Your task to perform on an android device: What's the weather going to be this weekend? Image 0: 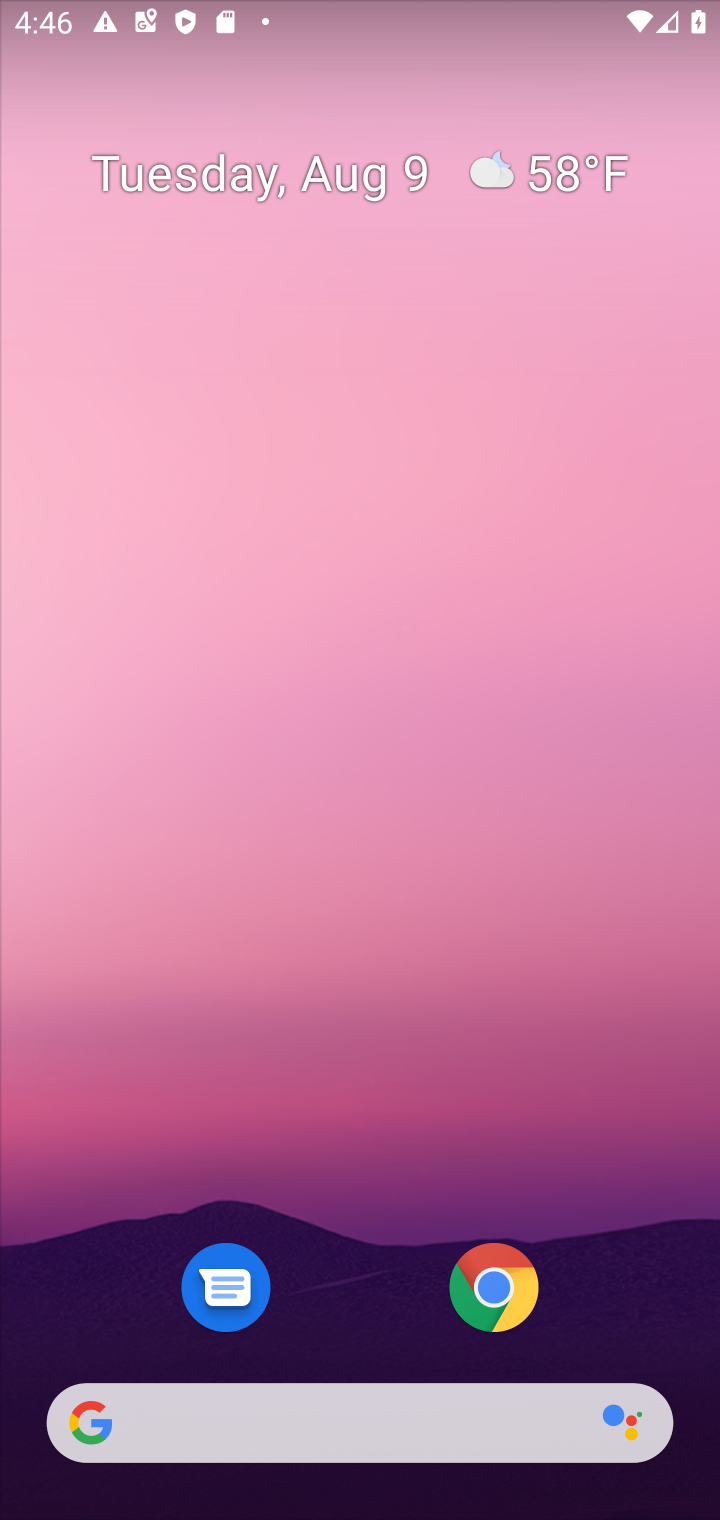
Step 0: drag from (433, 1150) to (448, 105)
Your task to perform on an android device: What's the weather going to be this weekend? Image 1: 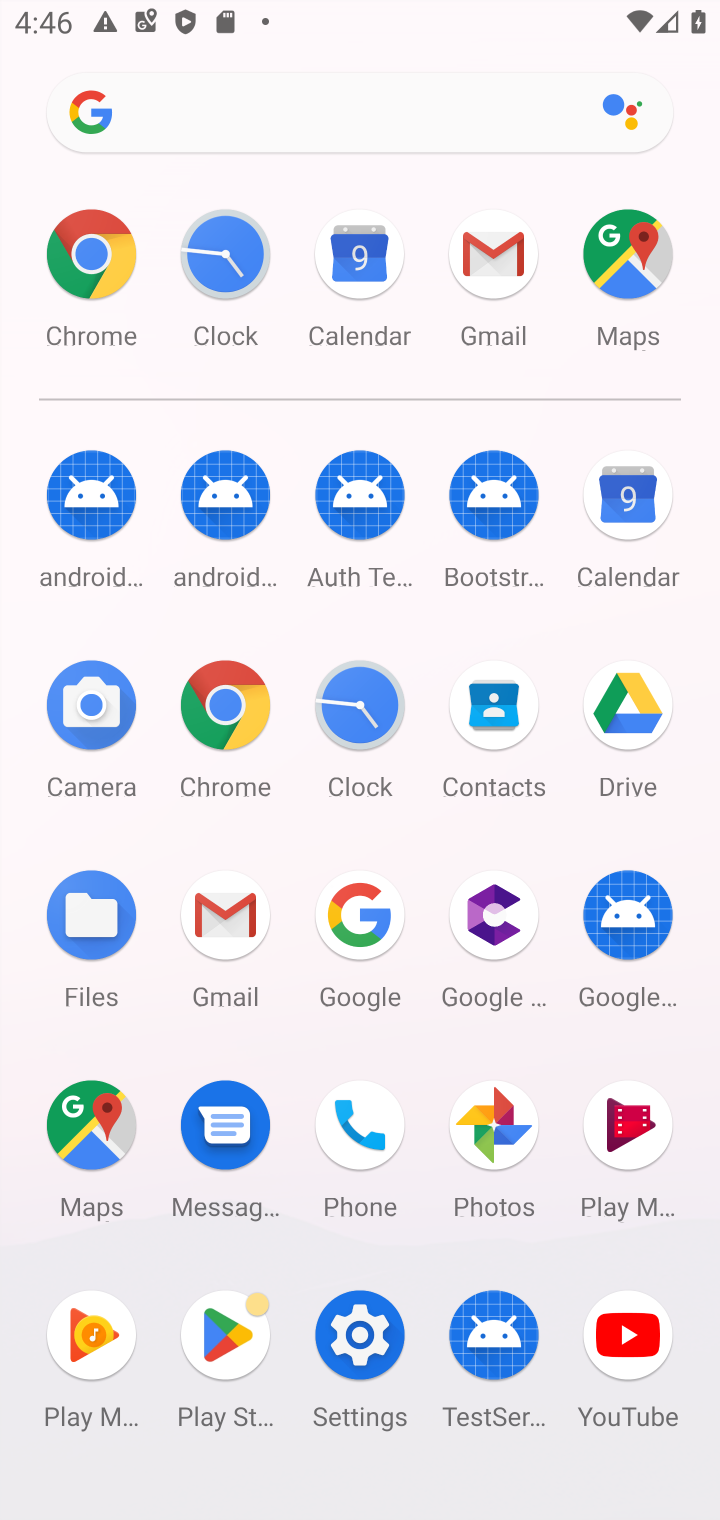
Step 1: click (610, 516)
Your task to perform on an android device: What's the weather going to be this weekend? Image 2: 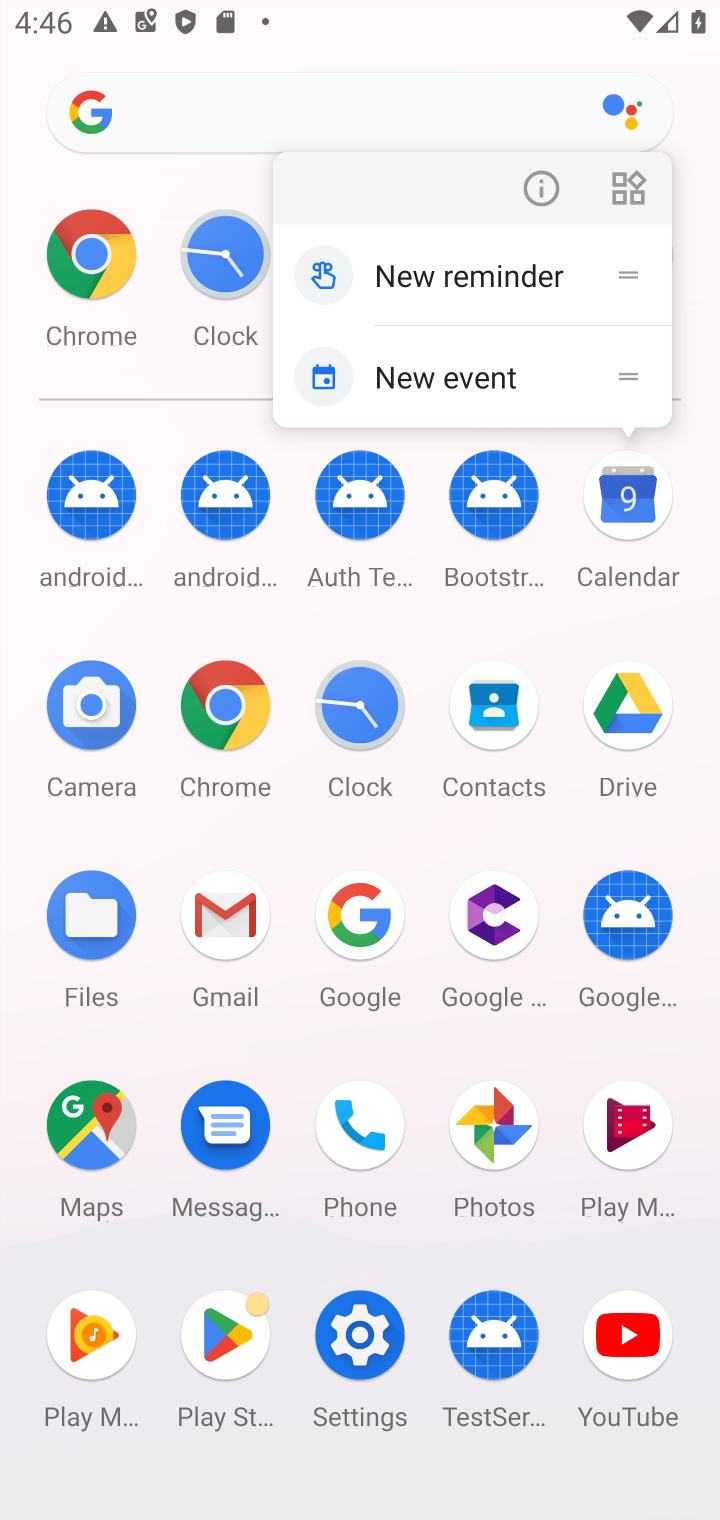
Step 2: click (621, 489)
Your task to perform on an android device: What's the weather going to be this weekend? Image 3: 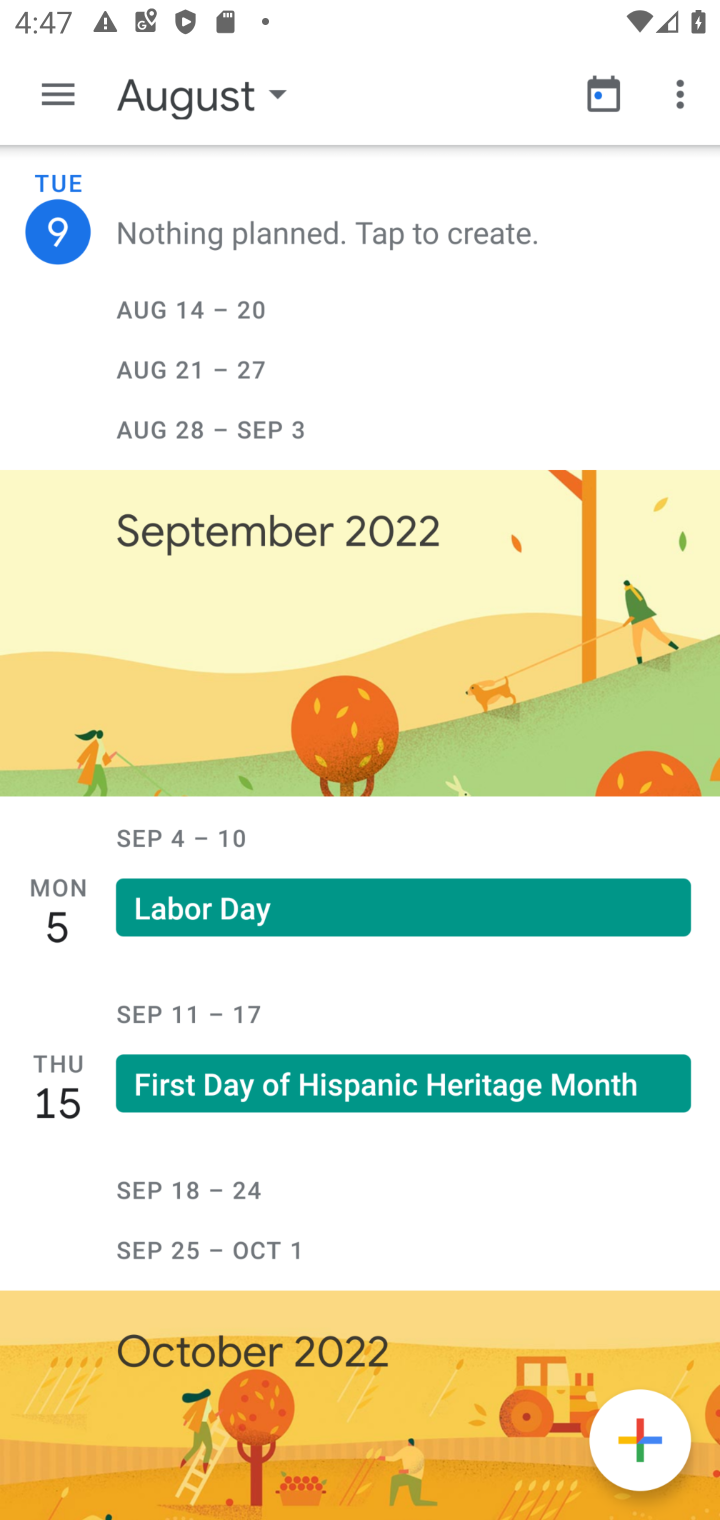
Step 3: click (621, 489)
Your task to perform on an android device: What's the weather going to be this weekend? Image 4: 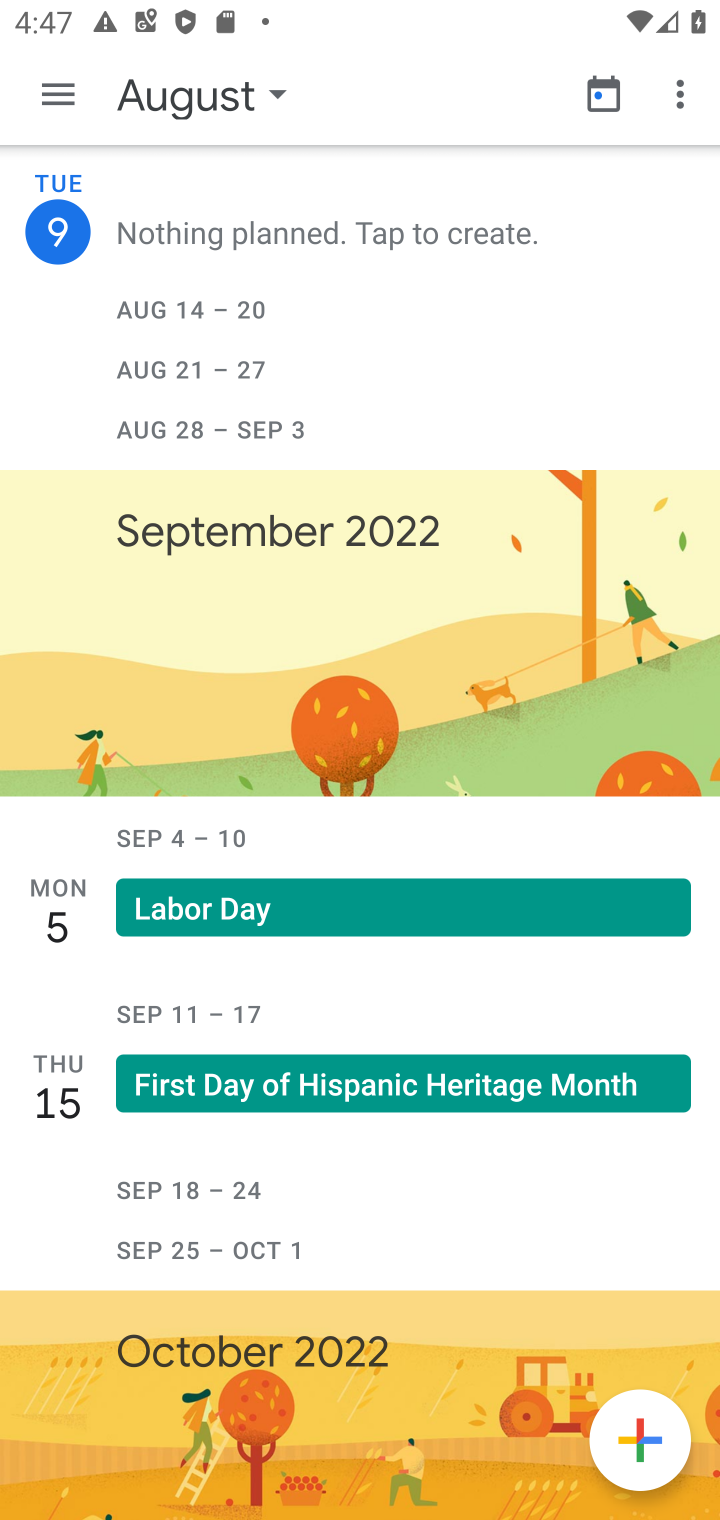
Step 4: task complete